Your task to perform on an android device: Open maps Image 0: 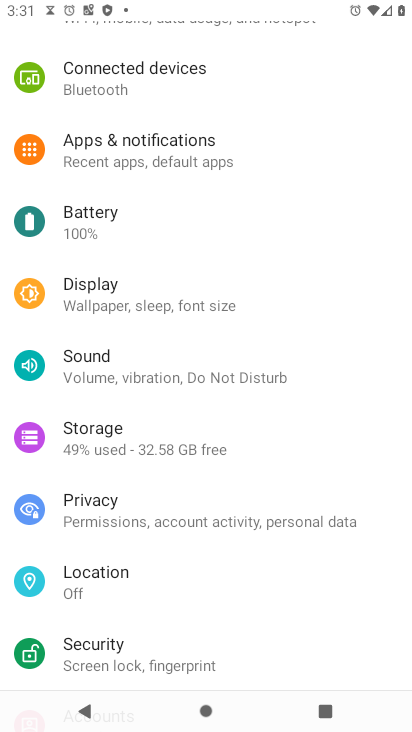
Step 0: press back button
Your task to perform on an android device: Open maps Image 1: 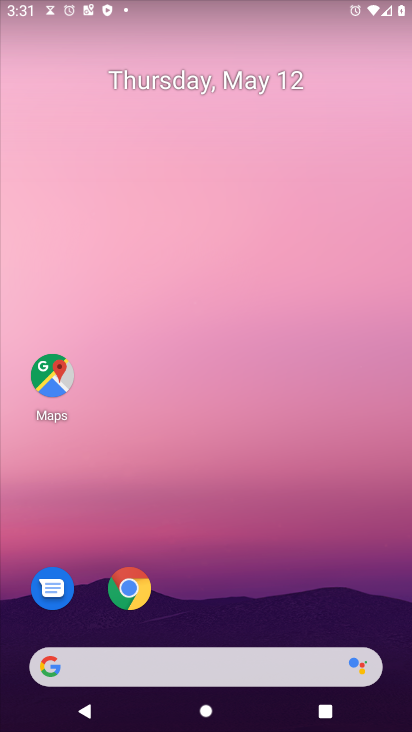
Step 1: drag from (306, 528) to (275, 4)
Your task to perform on an android device: Open maps Image 2: 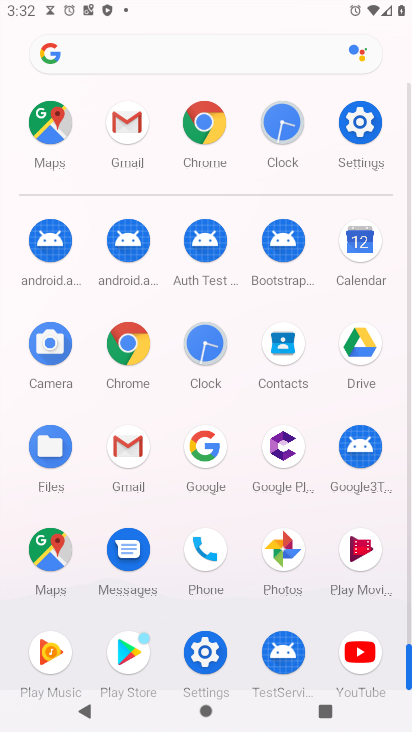
Step 2: click (48, 123)
Your task to perform on an android device: Open maps Image 3: 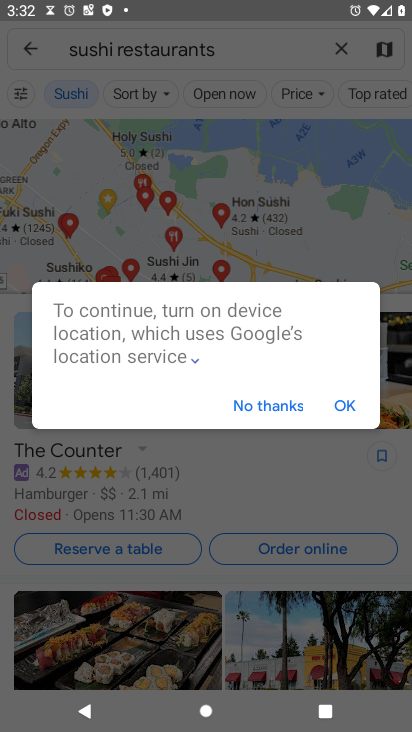
Step 3: click (344, 404)
Your task to perform on an android device: Open maps Image 4: 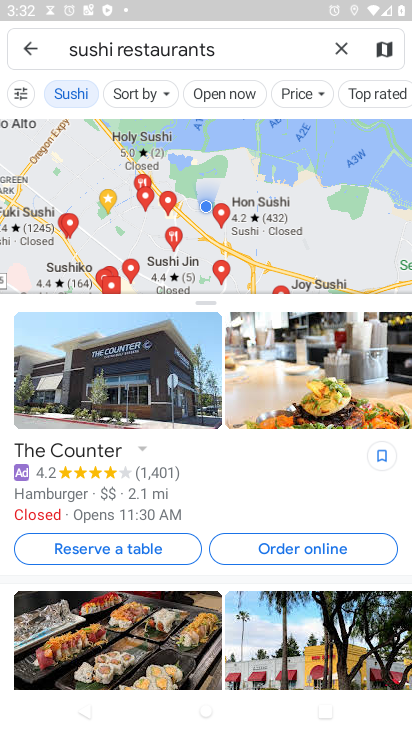
Step 4: click (336, 43)
Your task to perform on an android device: Open maps Image 5: 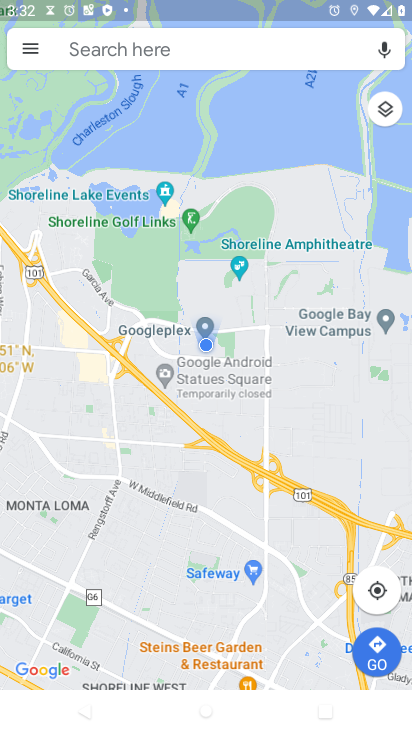
Step 5: task complete